Your task to perform on an android device: turn on translation in the chrome app Image 0: 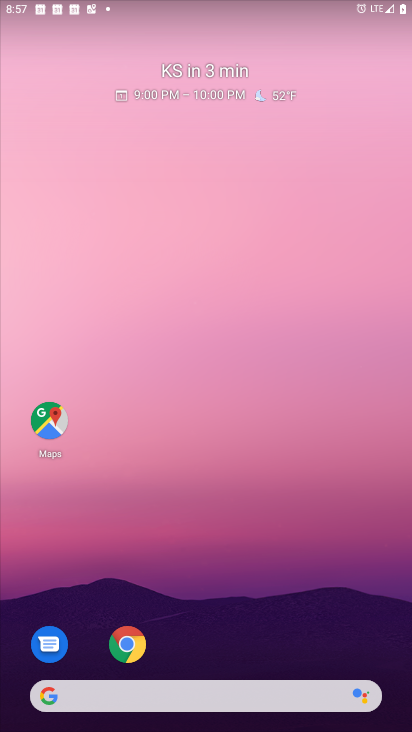
Step 0: click (126, 641)
Your task to perform on an android device: turn on translation in the chrome app Image 1: 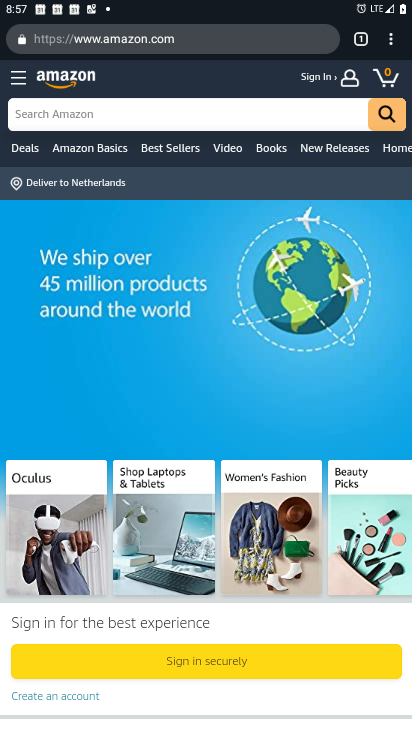
Step 1: click (389, 43)
Your task to perform on an android device: turn on translation in the chrome app Image 2: 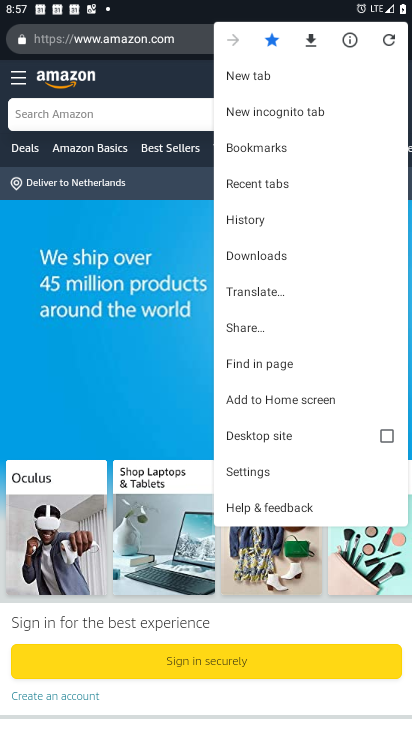
Step 2: click (249, 470)
Your task to perform on an android device: turn on translation in the chrome app Image 3: 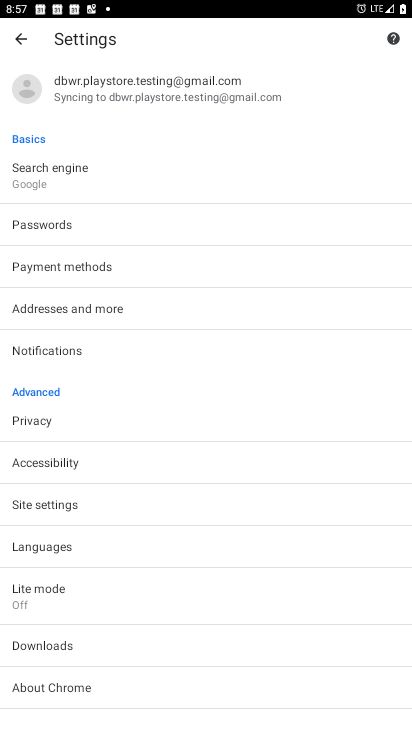
Step 3: click (34, 546)
Your task to perform on an android device: turn on translation in the chrome app Image 4: 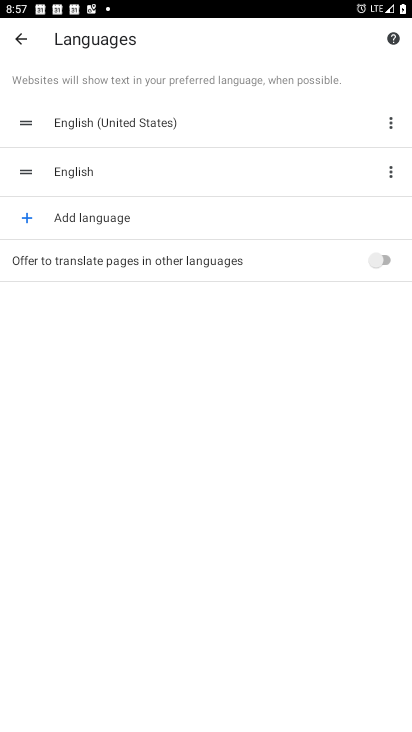
Step 4: click (390, 260)
Your task to perform on an android device: turn on translation in the chrome app Image 5: 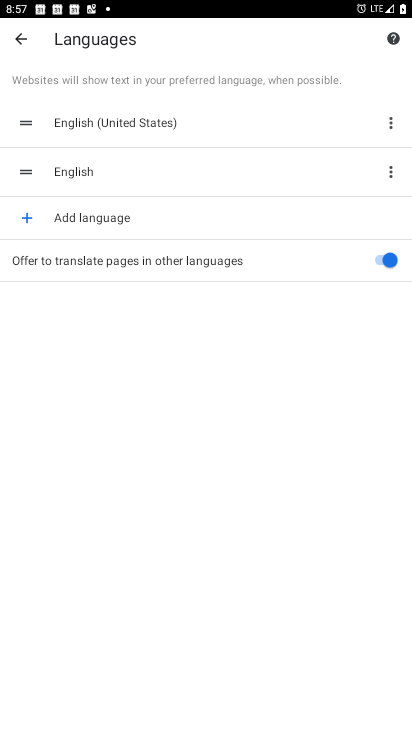
Step 5: task complete